Your task to perform on an android device: Turn off the flashlight Image 0: 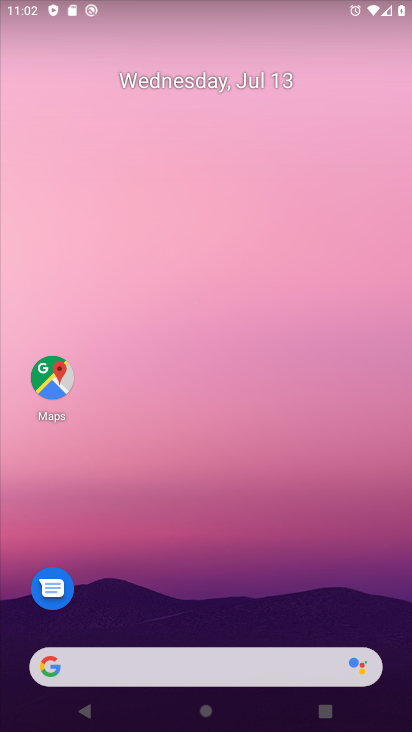
Step 0: drag from (293, 12) to (237, 720)
Your task to perform on an android device: Turn off the flashlight Image 1: 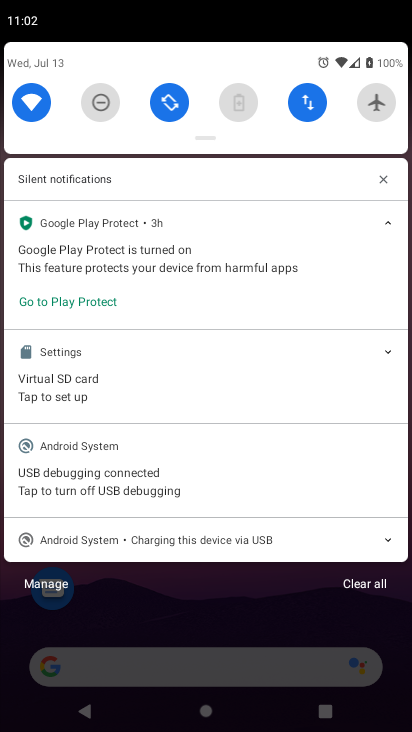
Step 1: task complete